Your task to perform on an android device: Go to ESPN.com Image 0: 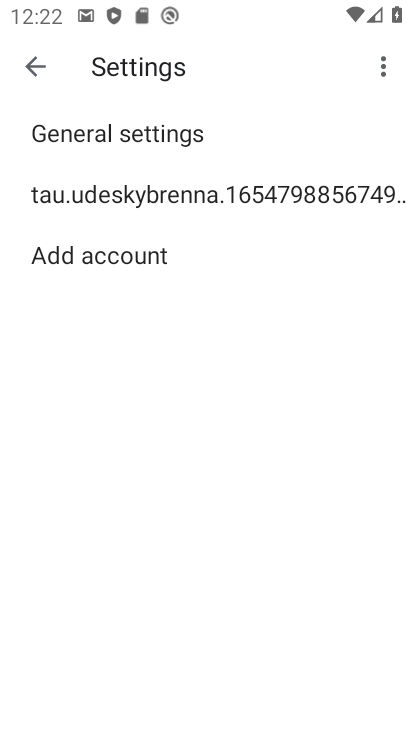
Step 0: press home button
Your task to perform on an android device: Go to ESPN.com Image 1: 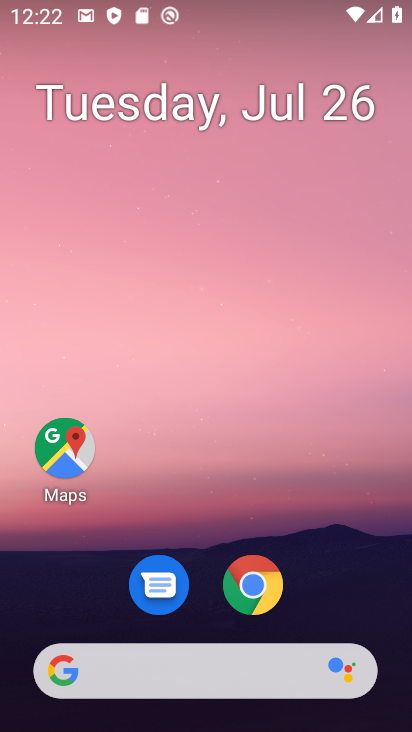
Step 1: click (245, 581)
Your task to perform on an android device: Go to ESPN.com Image 2: 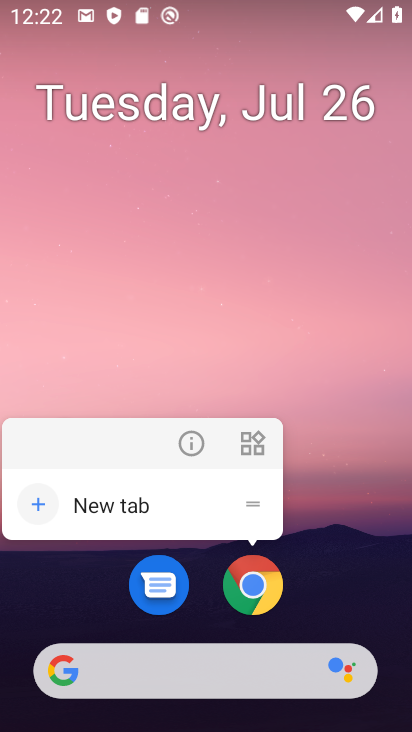
Step 2: click (251, 584)
Your task to perform on an android device: Go to ESPN.com Image 3: 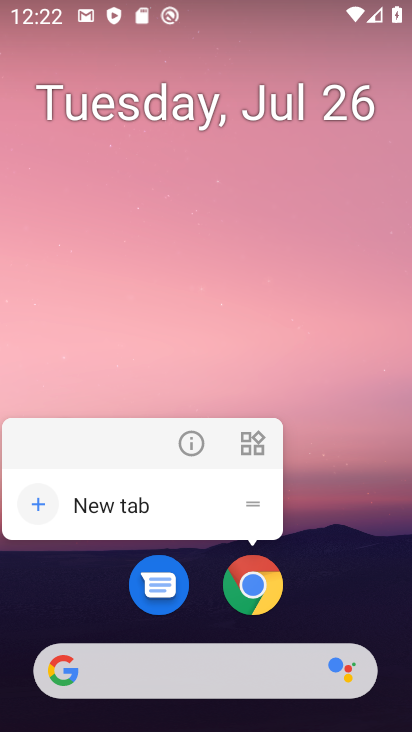
Step 3: click (261, 579)
Your task to perform on an android device: Go to ESPN.com Image 4: 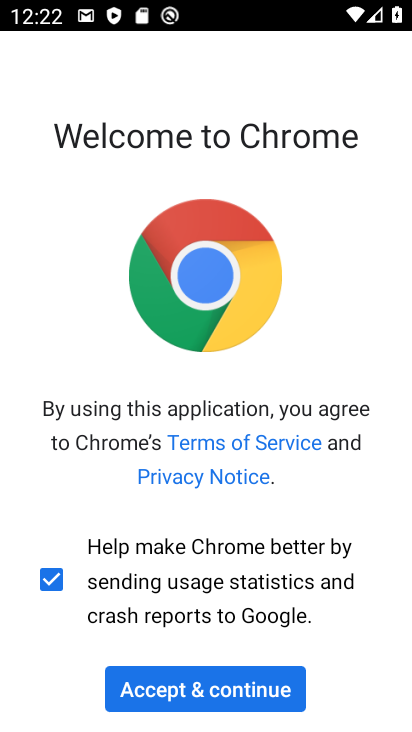
Step 4: click (187, 688)
Your task to perform on an android device: Go to ESPN.com Image 5: 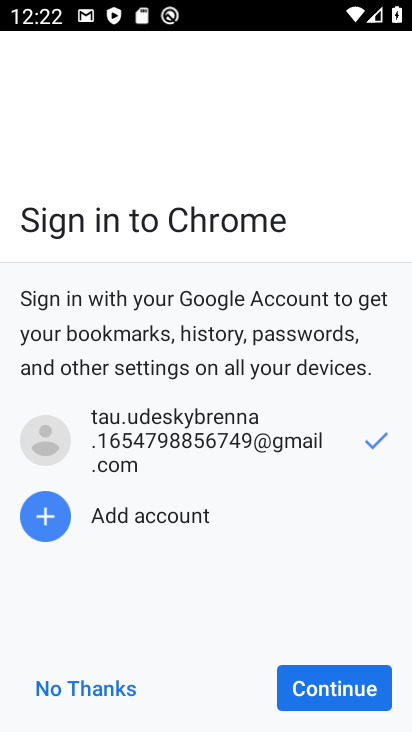
Step 5: click (348, 681)
Your task to perform on an android device: Go to ESPN.com Image 6: 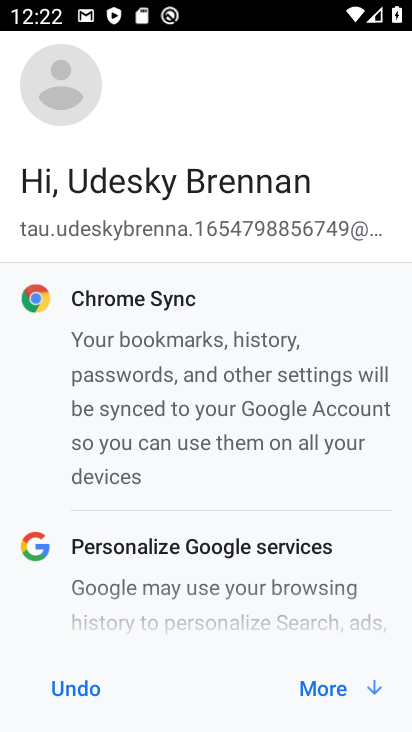
Step 6: click (348, 682)
Your task to perform on an android device: Go to ESPN.com Image 7: 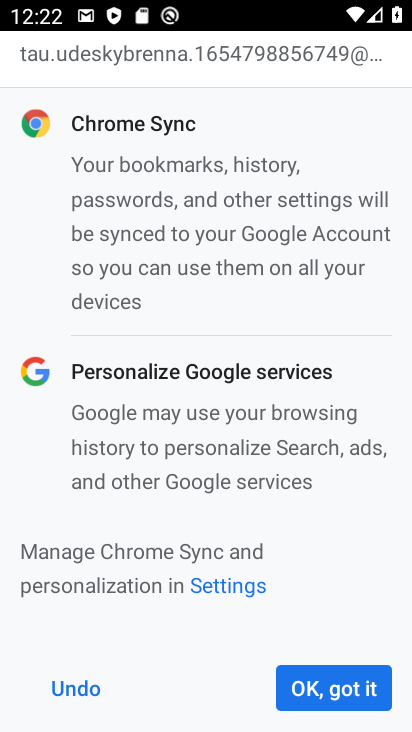
Step 7: click (347, 682)
Your task to perform on an android device: Go to ESPN.com Image 8: 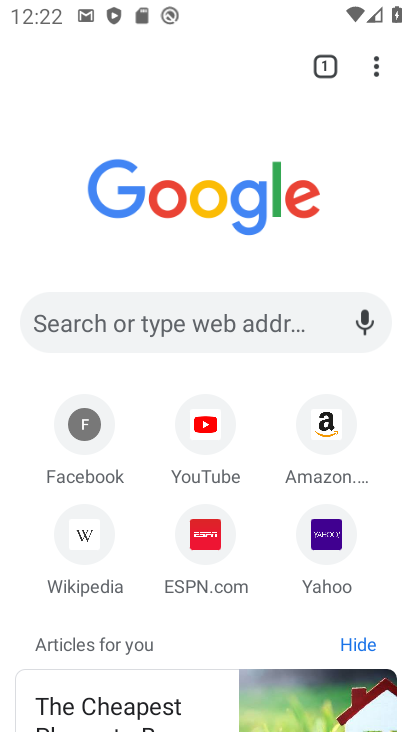
Step 8: click (211, 546)
Your task to perform on an android device: Go to ESPN.com Image 9: 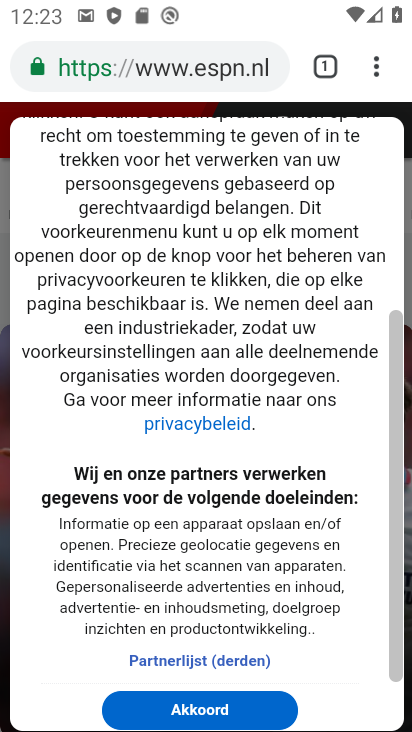
Step 9: click (222, 709)
Your task to perform on an android device: Go to ESPN.com Image 10: 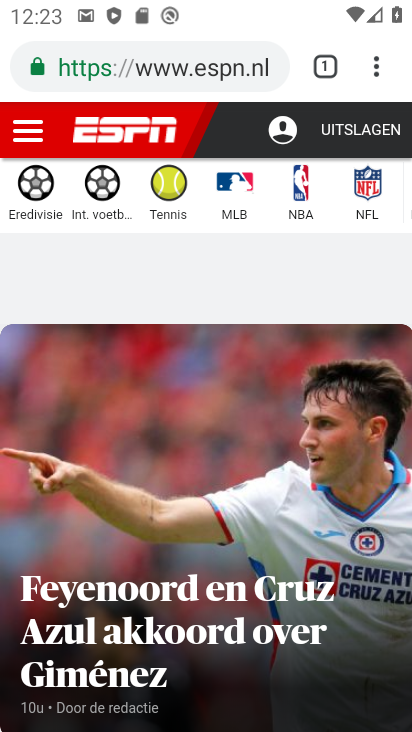
Step 10: task complete